Your task to perform on an android device: Go to network settings Image 0: 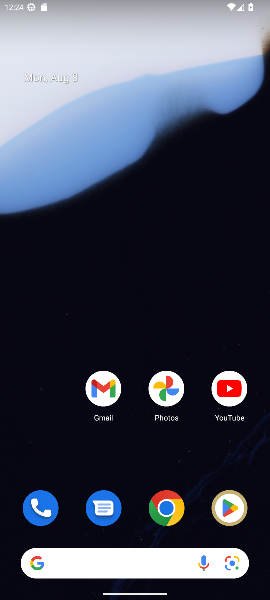
Step 0: click (218, 444)
Your task to perform on an android device: Go to network settings Image 1: 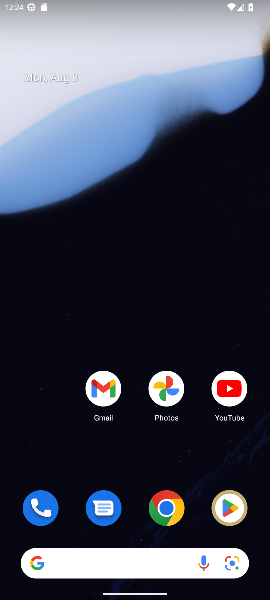
Step 1: drag from (218, 444) to (239, 281)
Your task to perform on an android device: Go to network settings Image 2: 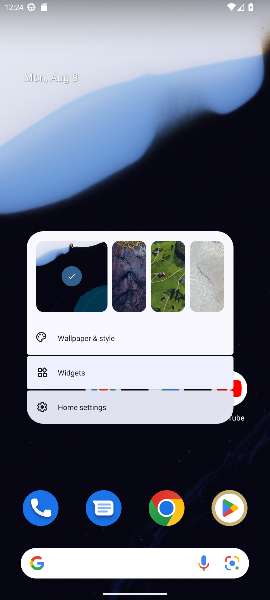
Step 2: click (113, 458)
Your task to perform on an android device: Go to network settings Image 3: 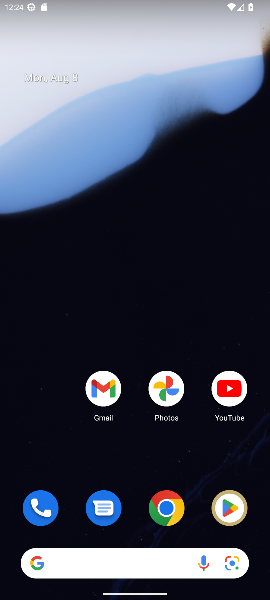
Step 3: drag from (113, 458) to (149, 50)
Your task to perform on an android device: Go to network settings Image 4: 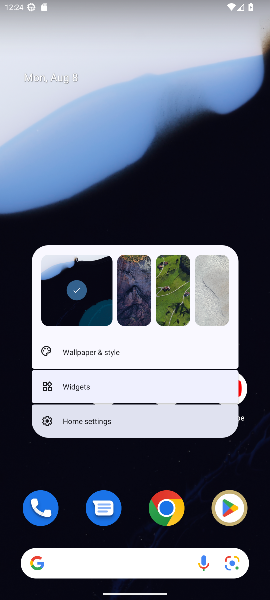
Step 4: click (10, 350)
Your task to perform on an android device: Go to network settings Image 5: 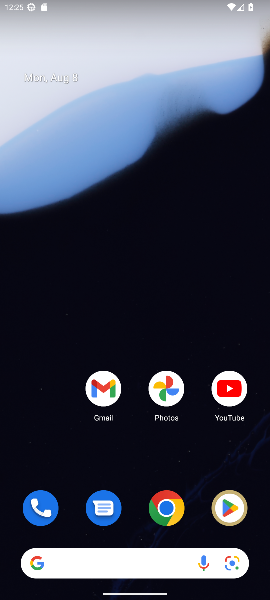
Step 5: drag from (131, 479) to (140, 167)
Your task to perform on an android device: Go to network settings Image 6: 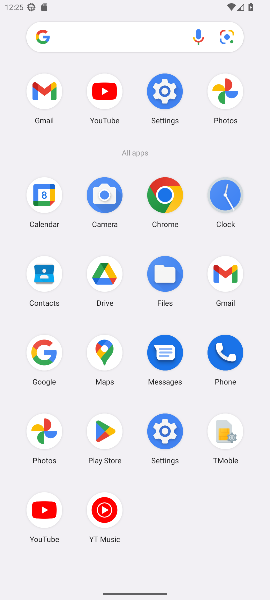
Step 6: click (161, 438)
Your task to perform on an android device: Go to network settings Image 7: 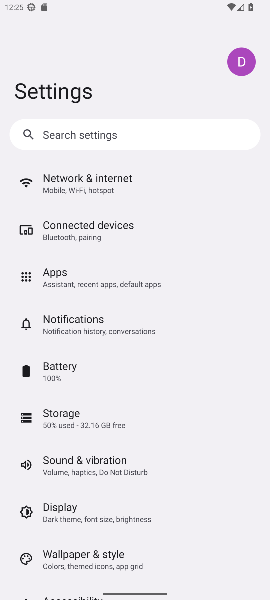
Step 7: click (106, 176)
Your task to perform on an android device: Go to network settings Image 8: 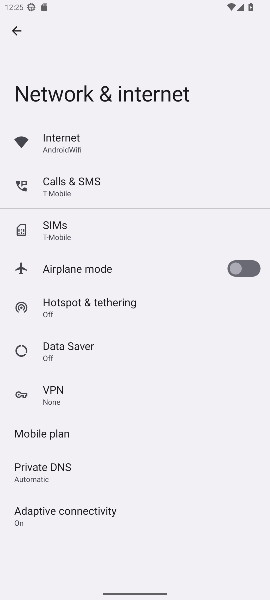
Step 8: task complete